Your task to perform on an android device: empty trash in google photos Image 0: 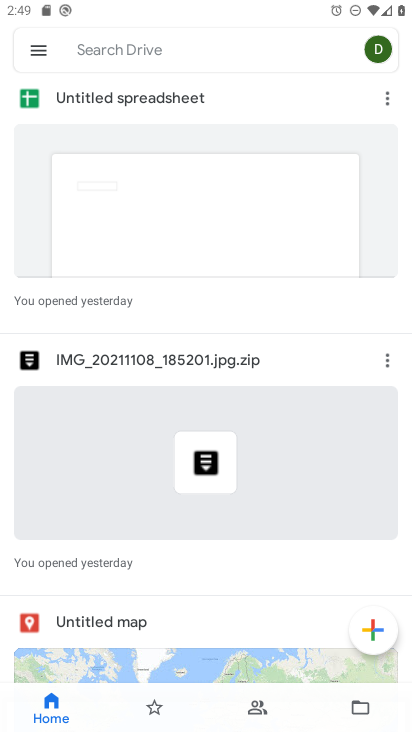
Step 0: press home button
Your task to perform on an android device: empty trash in google photos Image 1: 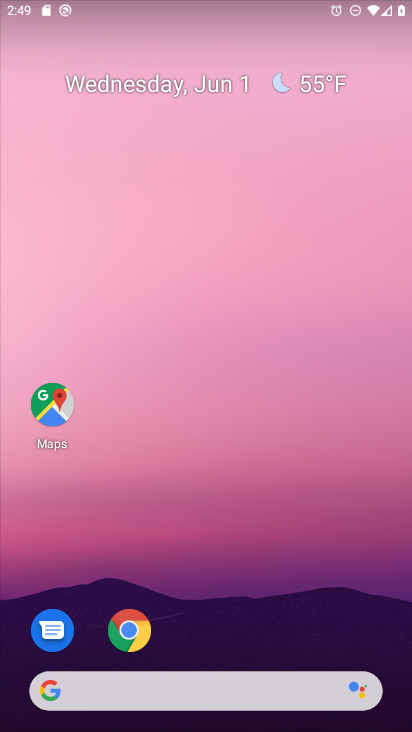
Step 1: drag from (285, 617) to (285, 35)
Your task to perform on an android device: empty trash in google photos Image 2: 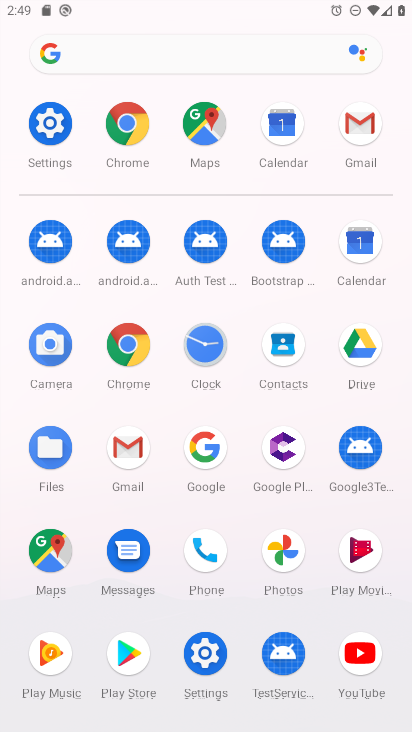
Step 2: click (283, 549)
Your task to perform on an android device: empty trash in google photos Image 3: 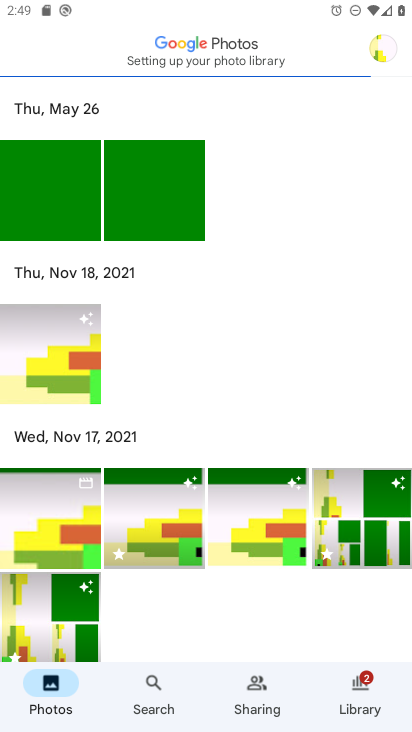
Step 3: click (380, 46)
Your task to perform on an android device: empty trash in google photos Image 4: 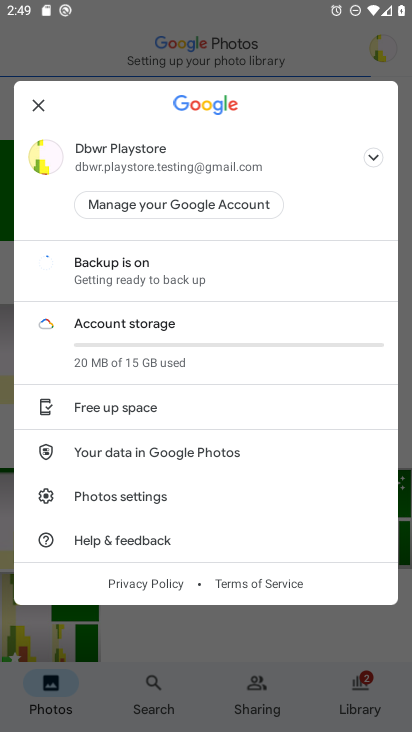
Step 4: click (179, 627)
Your task to perform on an android device: empty trash in google photos Image 5: 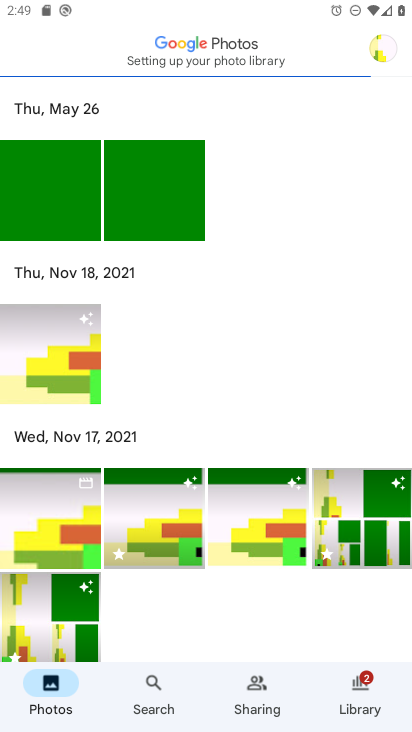
Step 5: click (363, 694)
Your task to perform on an android device: empty trash in google photos Image 6: 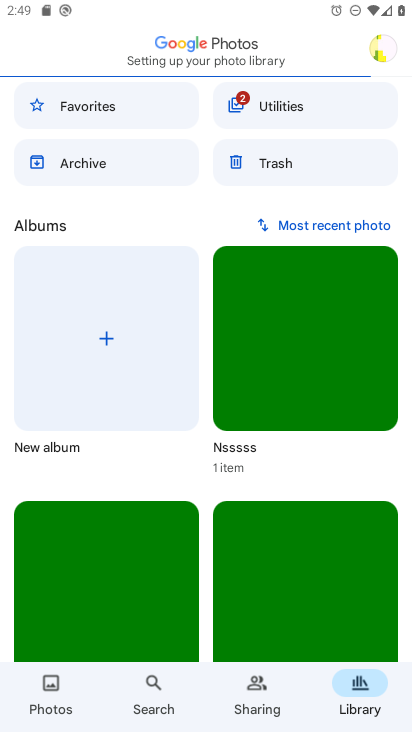
Step 6: click (285, 168)
Your task to perform on an android device: empty trash in google photos Image 7: 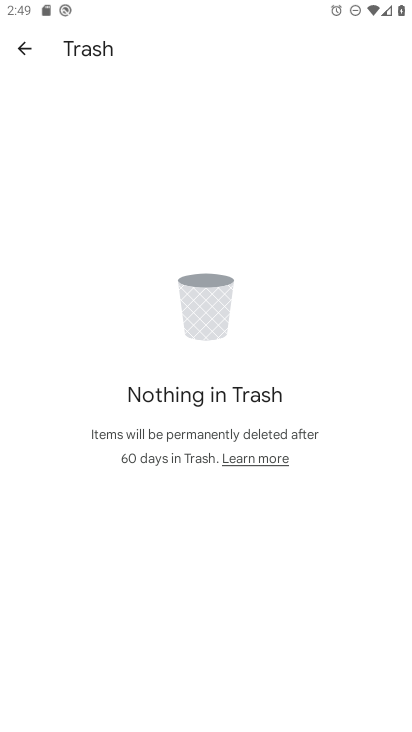
Step 7: task complete